Your task to perform on an android device: visit the assistant section in the google photos Image 0: 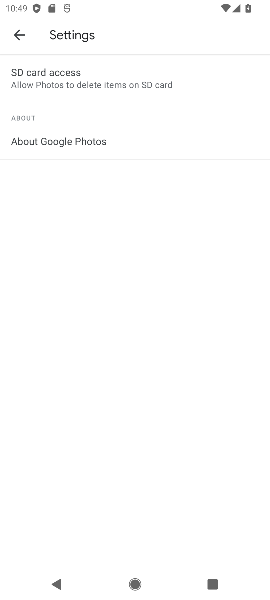
Step 0: press back button
Your task to perform on an android device: visit the assistant section in the google photos Image 1: 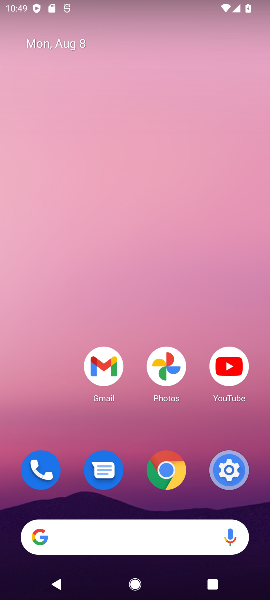
Step 1: click (166, 371)
Your task to perform on an android device: visit the assistant section in the google photos Image 2: 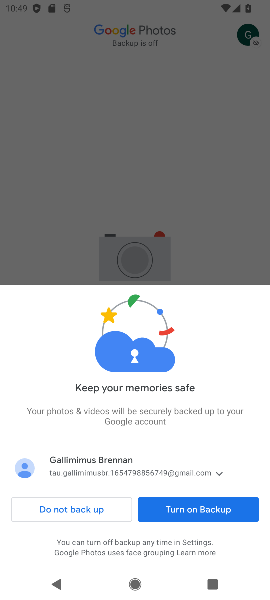
Step 2: click (218, 512)
Your task to perform on an android device: visit the assistant section in the google photos Image 3: 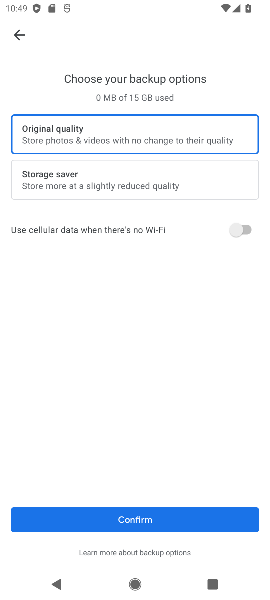
Step 3: click (183, 514)
Your task to perform on an android device: visit the assistant section in the google photos Image 4: 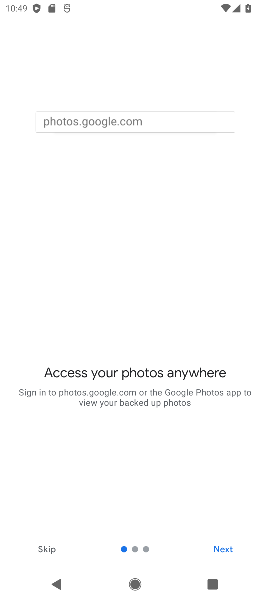
Step 4: click (231, 554)
Your task to perform on an android device: visit the assistant section in the google photos Image 5: 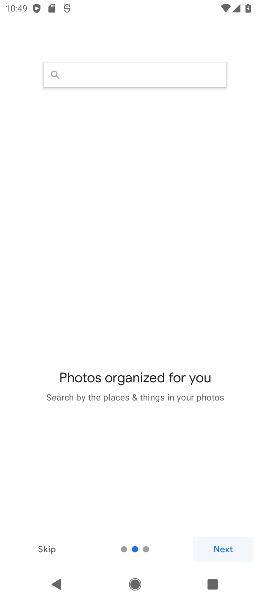
Step 5: click (231, 554)
Your task to perform on an android device: visit the assistant section in the google photos Image 6: 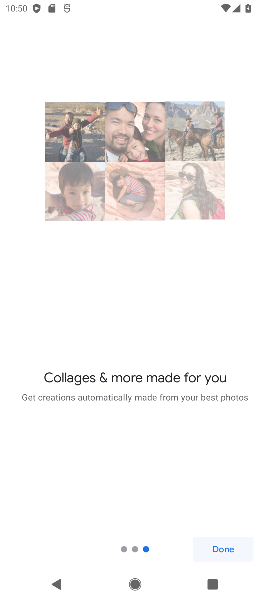
Step 6: click (231, 554)
Your task to perform on an android device: visit the assistant section in the google photos Image 7: 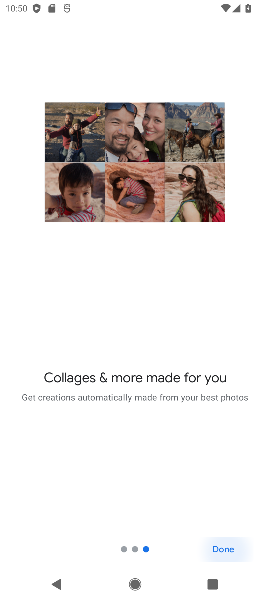
Step 7: click (231, 554)
Your task to perform on an android device: visit the assistant section in the google photos Image 8: 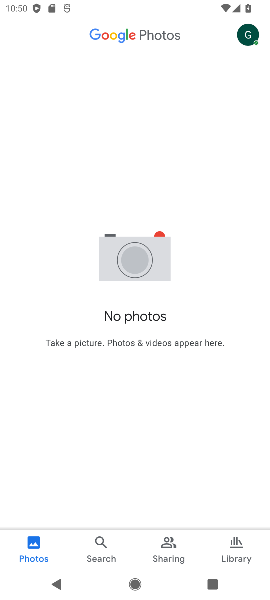
Step 8: task complete